Your task to perform on an android device: Go to ESPN.com Image 0: 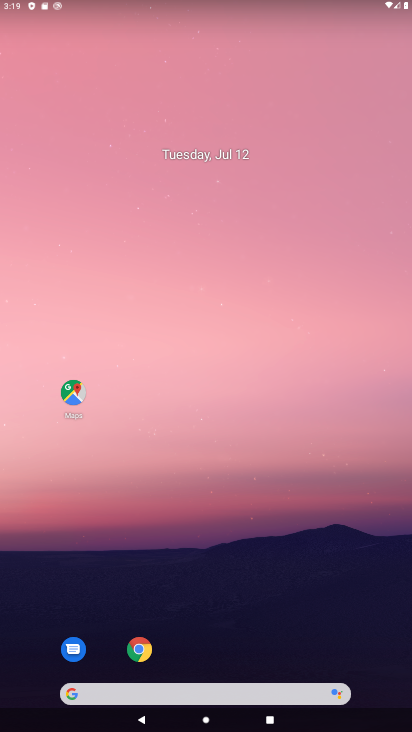
Step 0: press home button
Your task to perform on an android device: Go to ESPN.com Image 1: 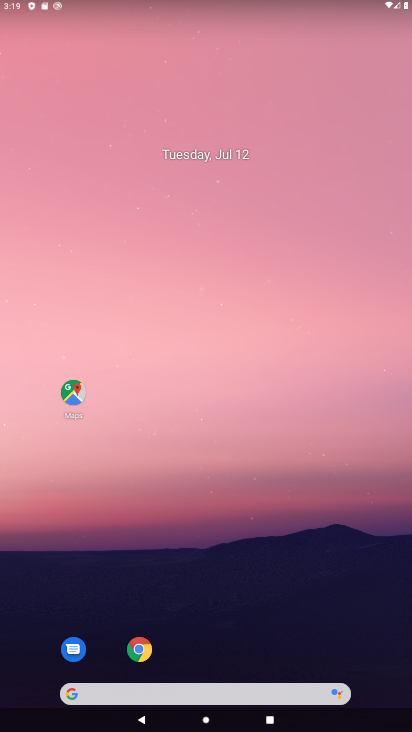
Step 1: click (135, 645)
Your task to perform on an android device: Go to ESPN.com Image 2: 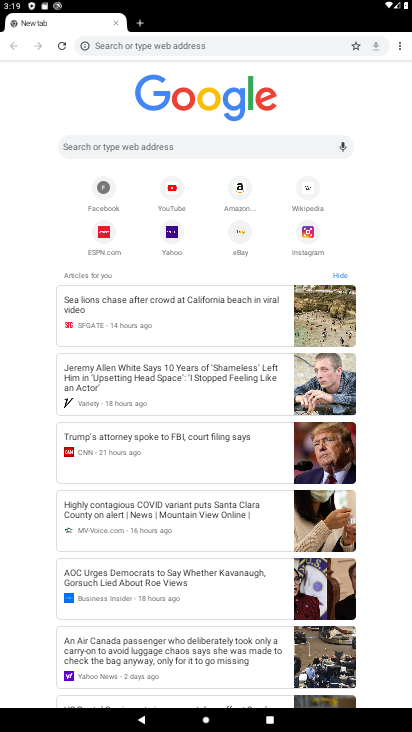
Step 2: click (147, 133)
Your task to perform on an android device: Go to ESPN.com Image 3: 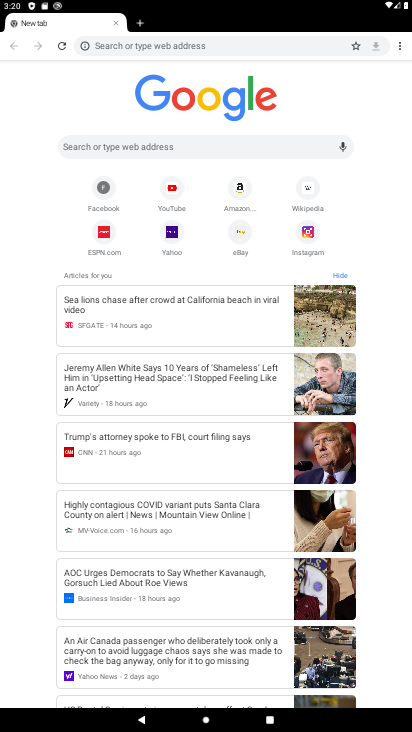
Step 3: click (98, 237)
Your task to perform on an android device: Go to ESPN.com Image 4: 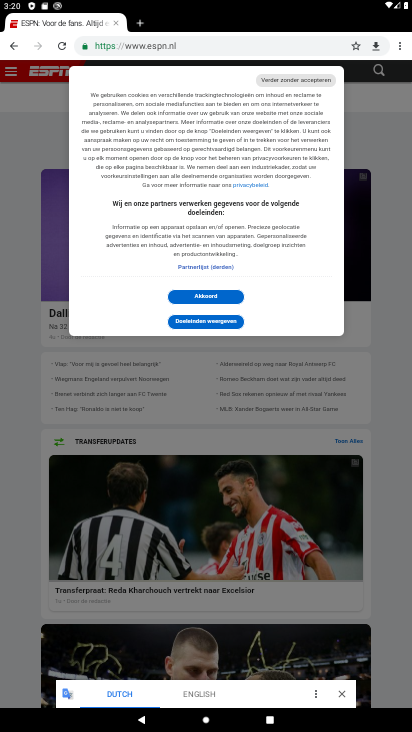
Step 4: drag from (205, 618) to (198, 451)
Your task to perform on an android device: Go to ESPN.com Image 5: 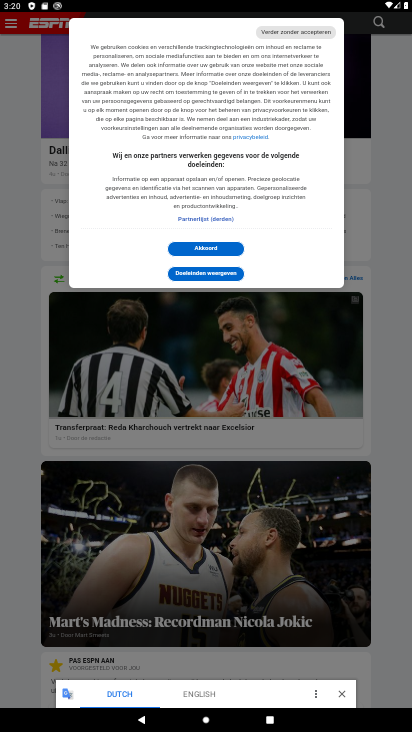
Step 5: click (210, 247)
Your task to perform on an android device: Go to ESPN.com Image 6: 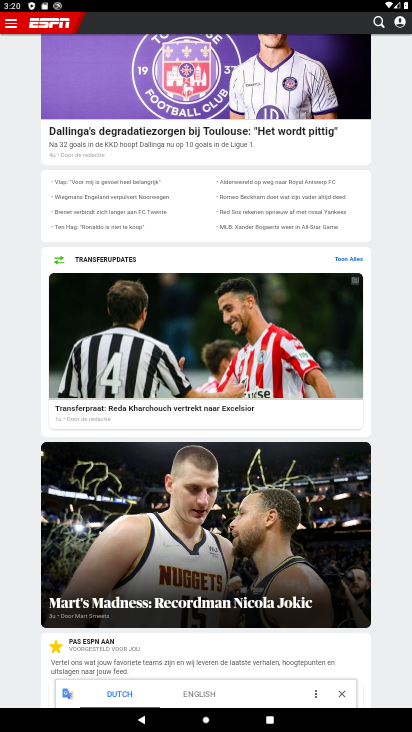
Step 6: task complete